Your task to perform on an android device: delete a single message in the gmail app Image 0: 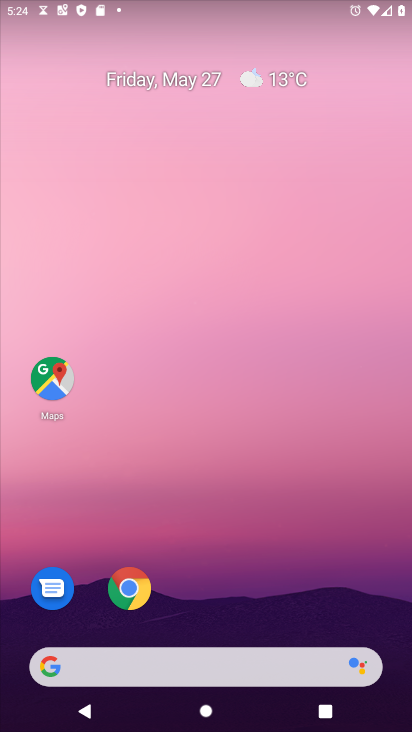
Step 0: drag from (250, 555) to (271, 108)
Your task to perform on an android device: delete a single message in the gmail app Image 1: 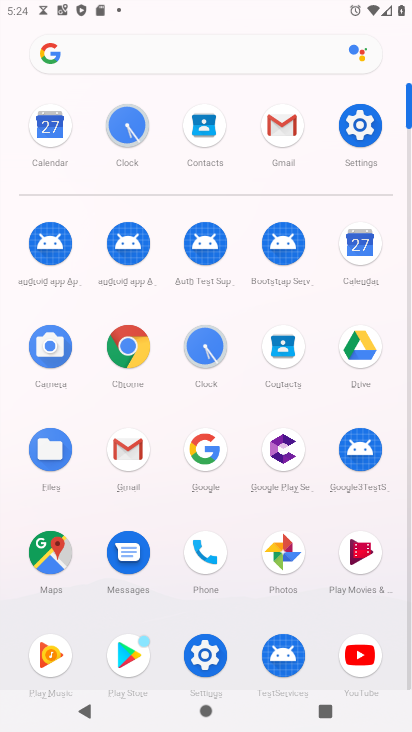
Step 1: click (274, 132)
Your task to perform on an android device: delete a single message in the gmail app Image 2: 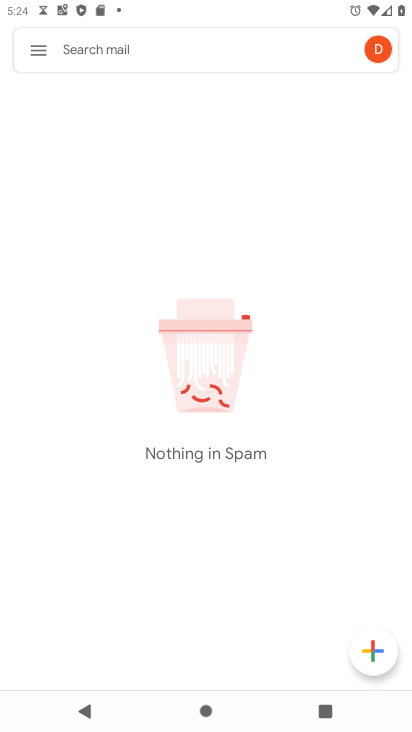
Step 2: click (33, 46)
Your task to perform on an android device: delete a single message in the gmail app Image 3: 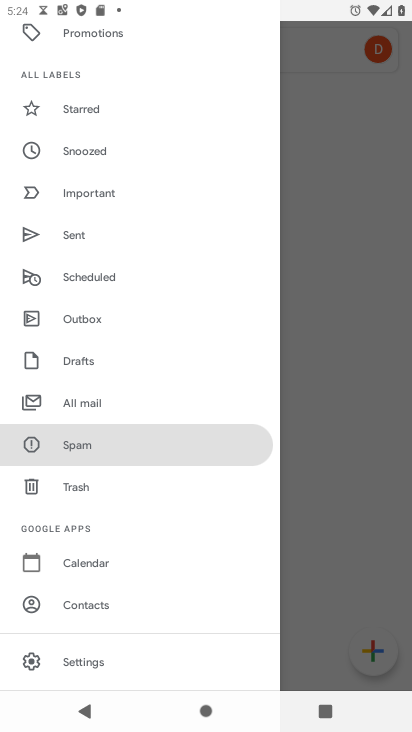
Step 3: click (84, 398)
Your task to perform on an android device: delete a single message in the gmail app Image 4: 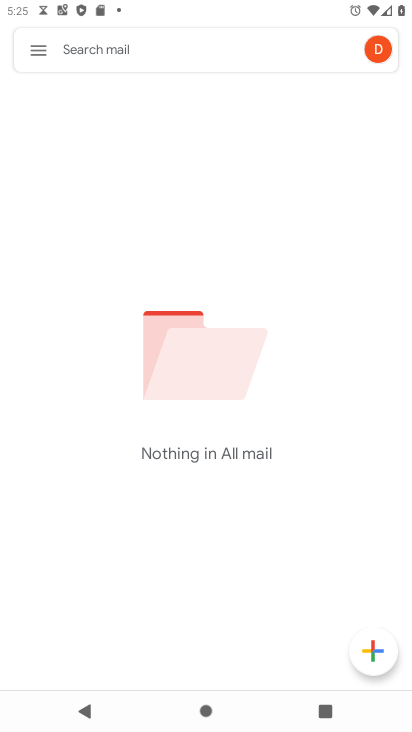
Step 4: task complete